Your task to perform on an android device: Find coffee shops on Maps Image 0: 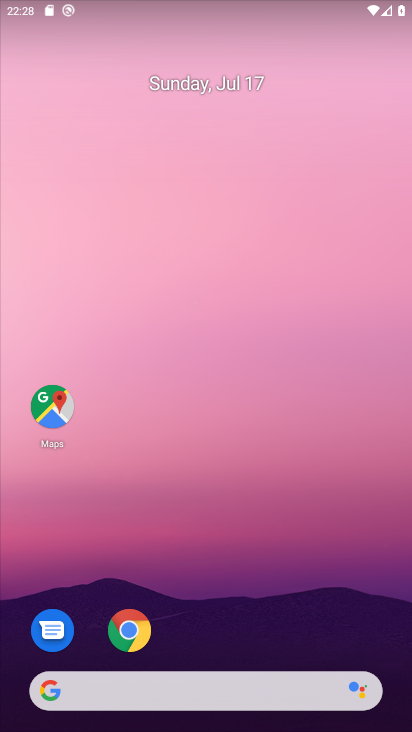
Step 0: click (70, 409)
Your task to perform on an android device: Find coffee shops on Maps Image 1: 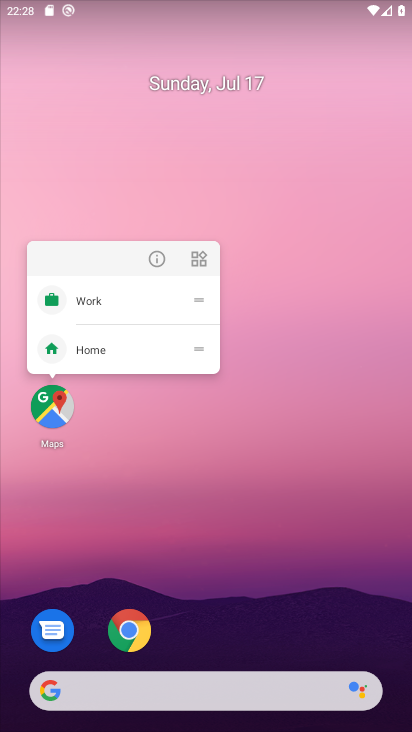
Step 1: click (52, 415)
Your task to perform on an android device: Find coffee shops on Maps Image 2: 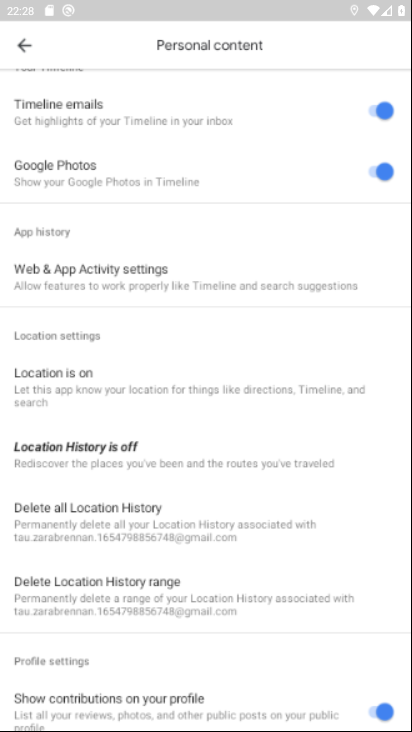
Step 2: click (30, 46)
Your task to perform on an android device: Find coffee shops on Maps Image 3: 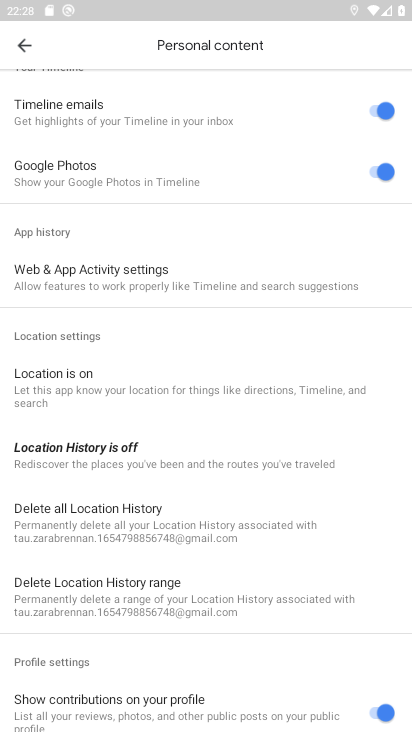
Step 3: click (21, 42)
Your task to perform on an android device: Find coffee shops on Maps Image 4: 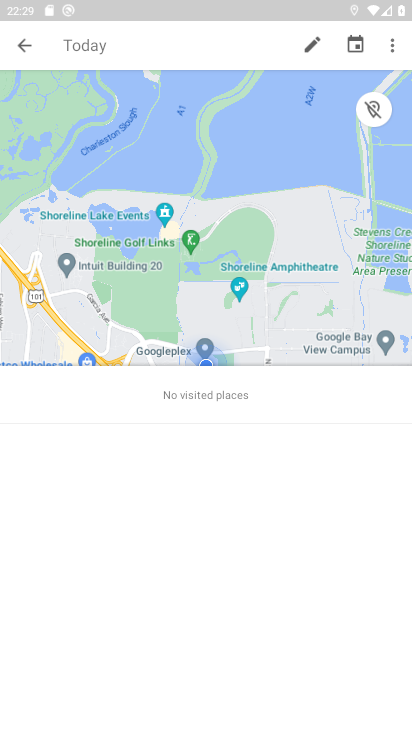
Step 4: click (28, 46)
Your task to perform on an android device: Find coffee shops on Maps Image 5: 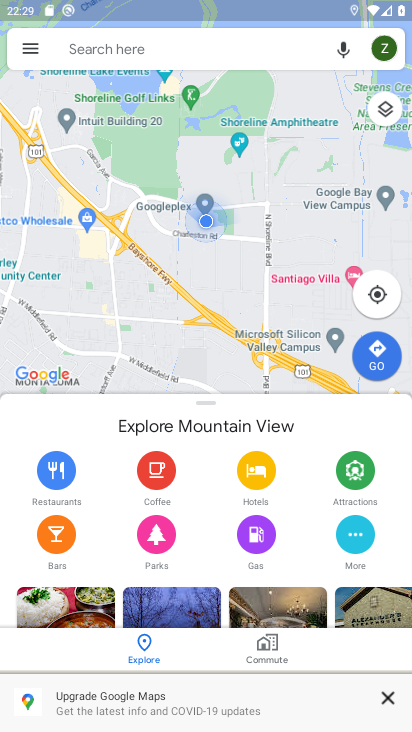
Step 5: click (111, 42)
Your task to perform on an android device: Find coffee shops on Maps Image 6: 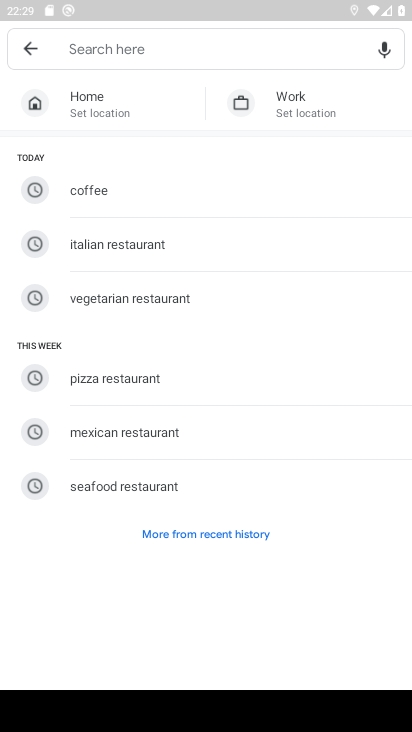
Step 6: type "coffee shops"
Your task to perform on an android device: Find coffee shops on Maps Image 7: 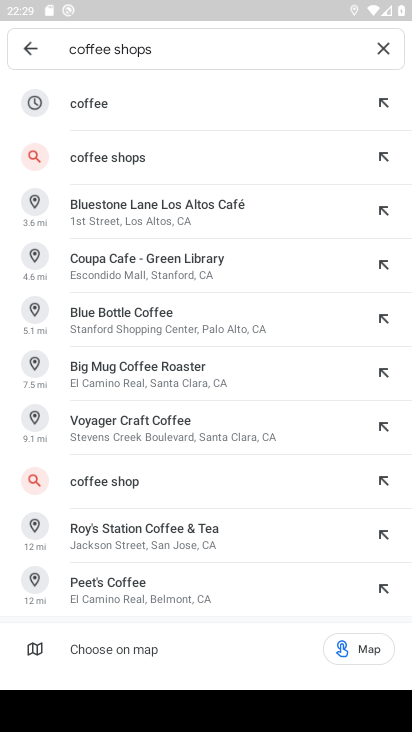
Step 7: click (194, 159)
Your task to perform on an android device: Find coffee shops on Maps Image 8: 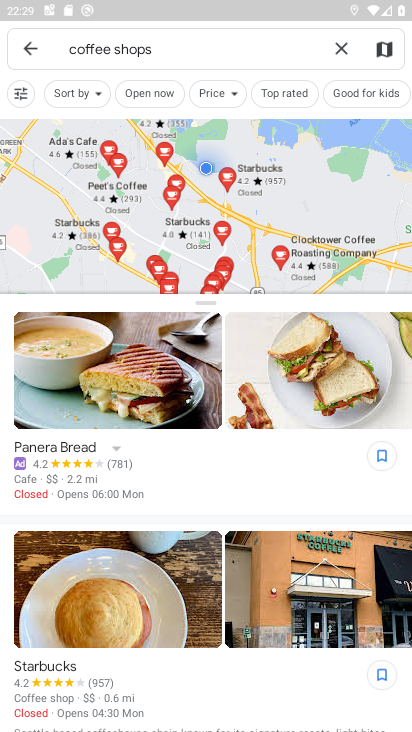
Step 8: task complete